Your task to perform on an android device: Do I have any events tomorrow? Image 0: 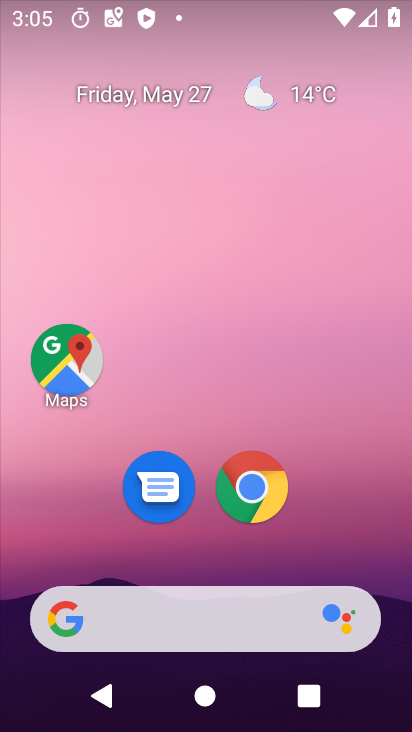
Step 0: drag from (363, 496) to (282, 0)
Your task to perform on an android device: Do I have any events tomorrow? Image 1: 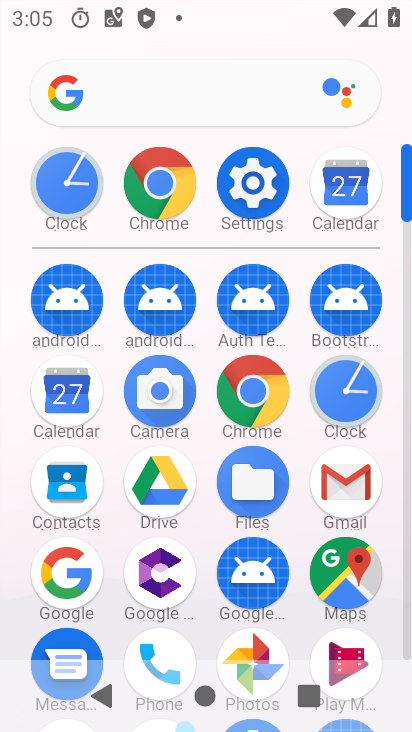
Step 1: click (346, 189)
Your task to perform on an android device: Do I have any events tomorrow? Image 2: 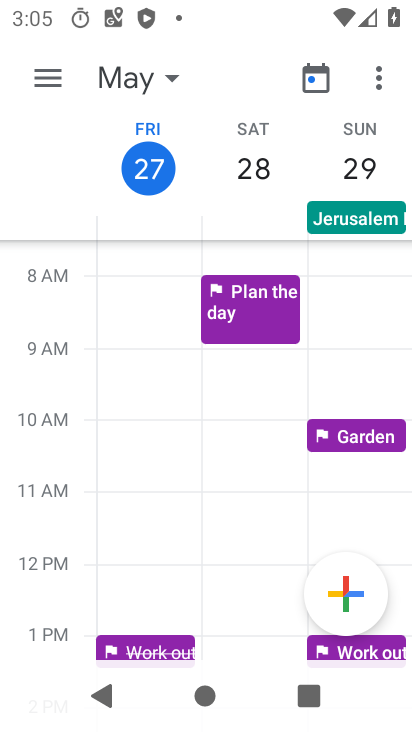
Step 2: task complete